Your task to perform on an android device: Open accessibility settings Image 0: 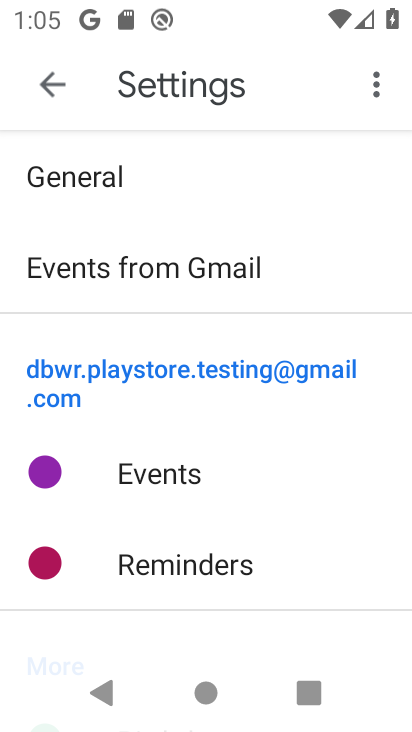
Step 0: press home button
Your task to perform on an android device: Open accessibility settings Image 1: 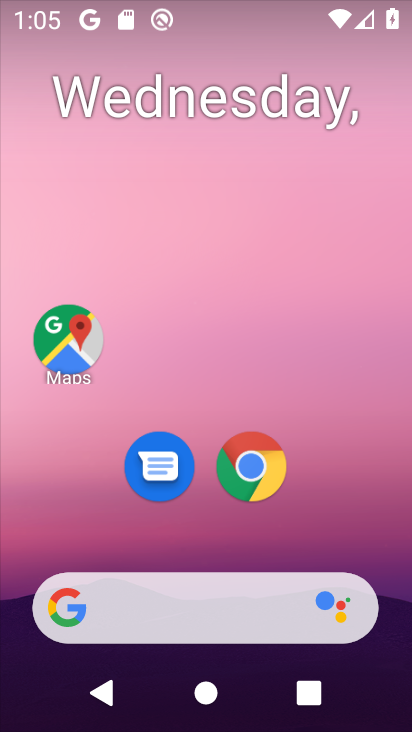
Step 1: drag from (295, 533) to (288, 231)
Your task to perform on an android device: Open accessibility settings Image 2: 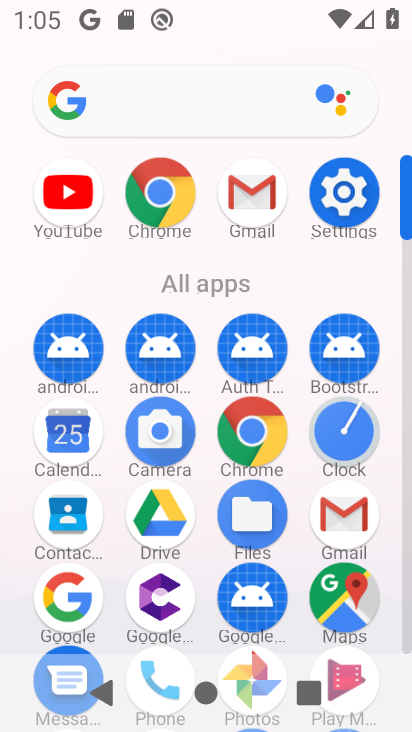
Step 2: click (351, 198)
Your task to perform on an android device: Open accessibility settings Image 3: 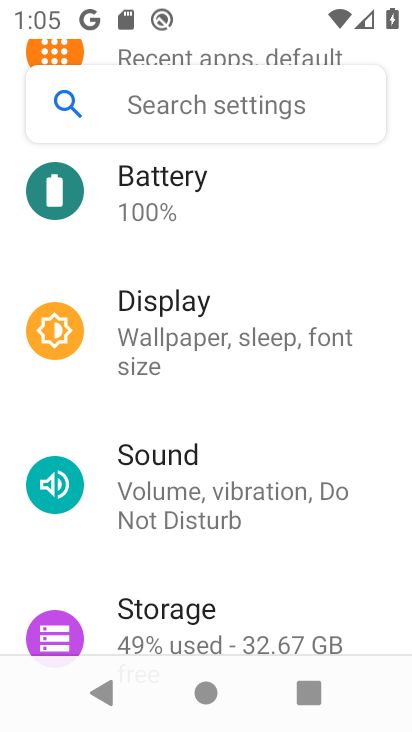
Step 3: drag from (249, 557) to (263, 165)
Your task to perform on an android device: Open accessibility settings Image 4: 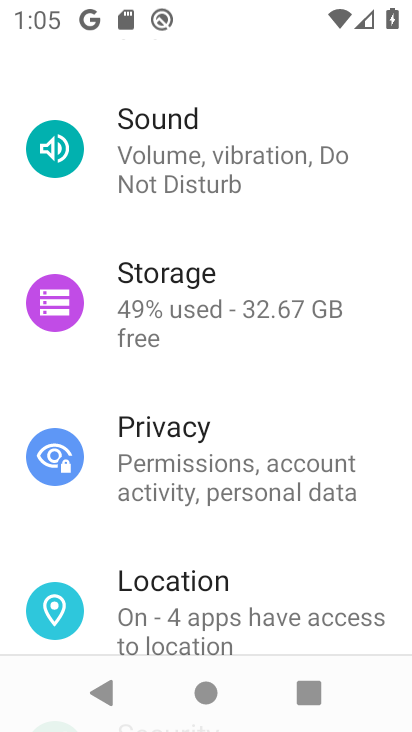
Step 4: drag from (262, 582) to (275, 188)
Your task to perform on an android device: Open accessibility settings Image 5: 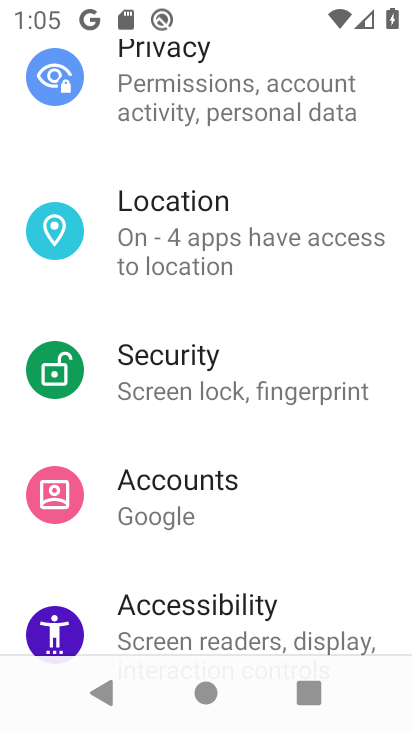
Step 5: click (250, 593)
Your task to perform on an android device: Open accessibility settings Image 6: 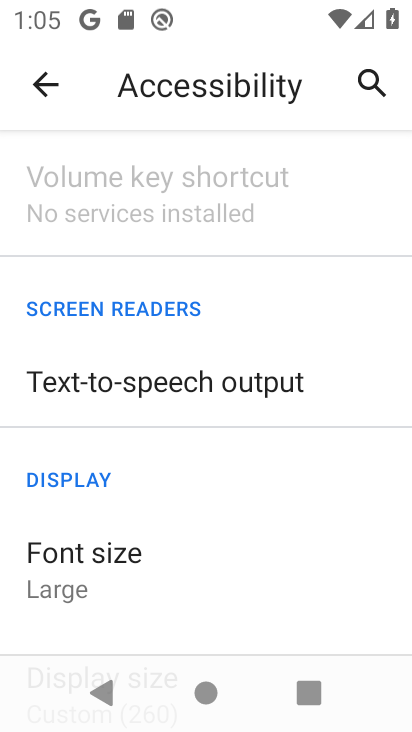
Step 6: task complete